Your task to perform on an android device: Open the calendar app, open the side menu, and click the "Day" option Image 0: 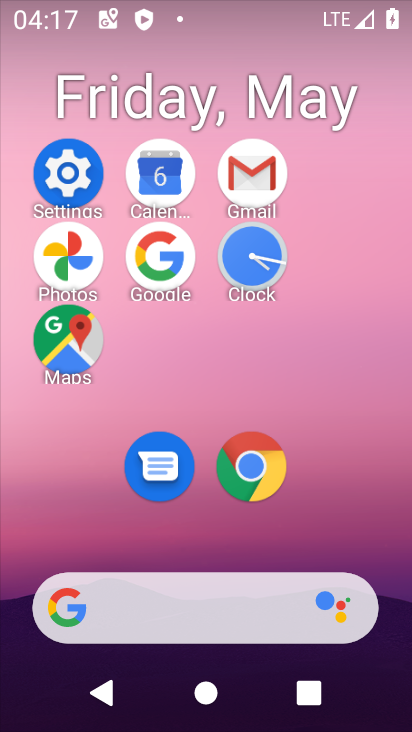
Step 0: click (146, 185)
Your task to perform on an android device: Open the calendar app, open the side menu, and click the "Day" option Image 1: 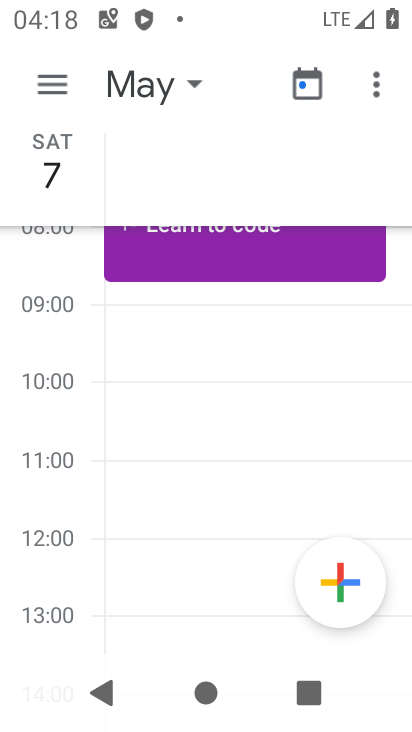
Step 1: click (26, 128)
Your task to perform on an android device: Open the calendar app, open the side menu, and click the "Day" option Image 2: 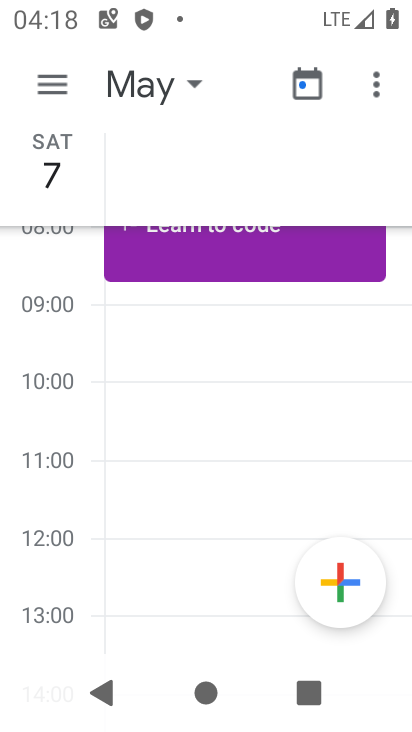
Step 2: click (52, 79)
Your task to perform on an android device: Open the calendar app, open the side menu, and click the "Day" option Image 3: 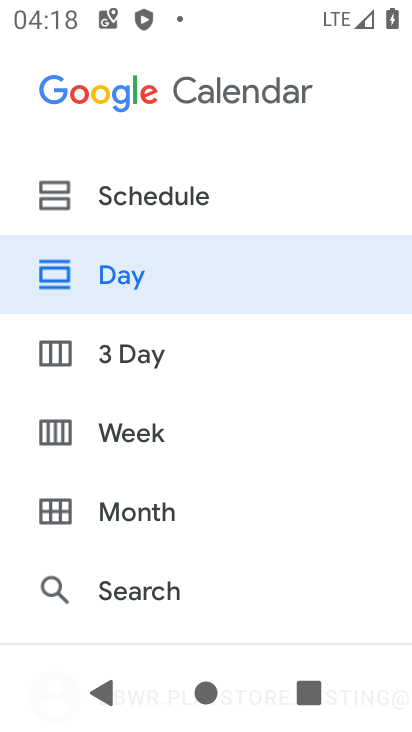
Step 3: click (139, 286)
Your task to perform on an android device: Open the calendar app, open the side menu, and click the "Day" option Image 4: 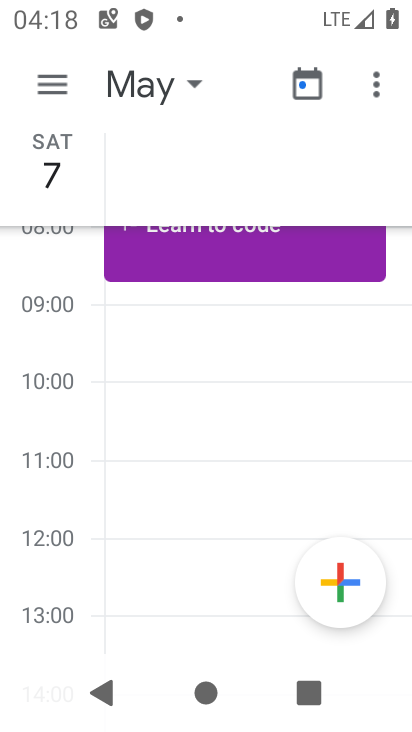
Step 4: task complete